Your task to perform on an android device: Is it going to rain this weekend? Image 0: 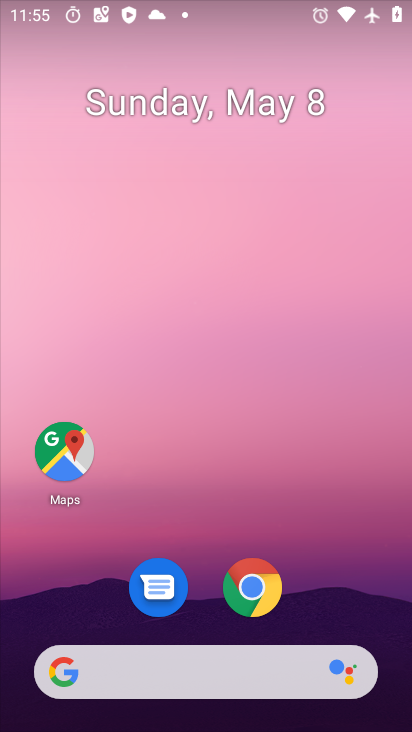
Step 0: drag from (3, 209) to (407, 476)
Your task to perform on an android device: Is it going to rain this weekend? Image 1: 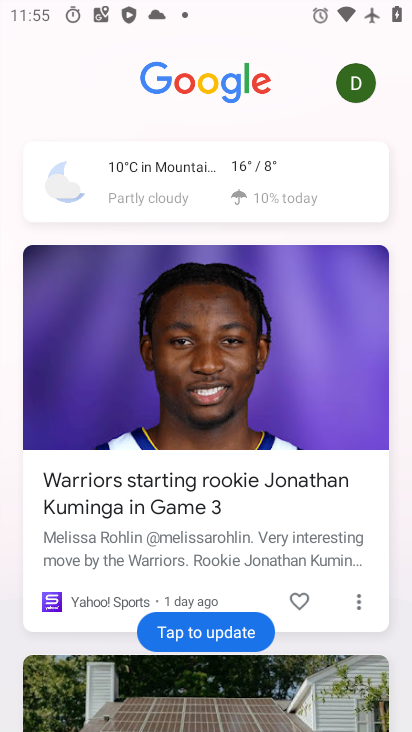
Step 1: click (214, 185)
Your task to perform on an android device: Is it going to rain this weekend? Image 2: 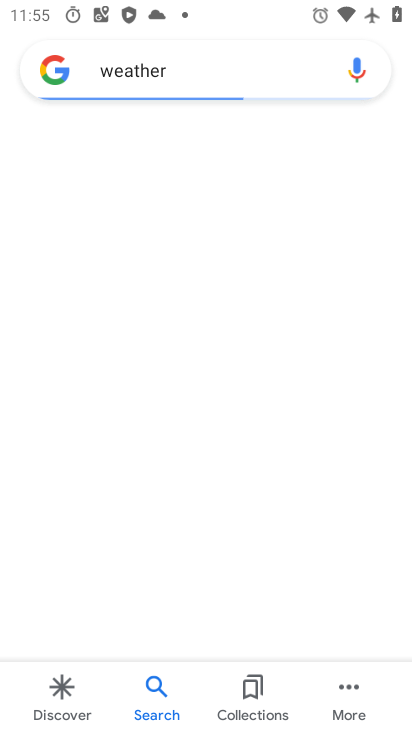
Step 2: click (214, 185)
Your task to perform on an android device: Is it going to rain this weekend? Image 3: 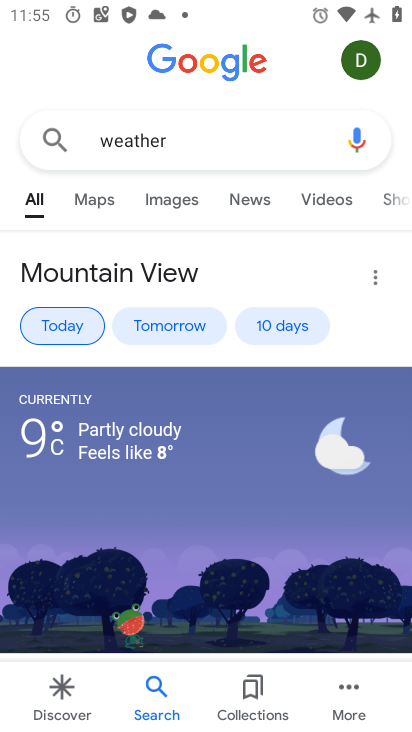
Step 3: click (158, 319)
Your task to perform on an android device: Is it going to rain this weekend? Image 4: 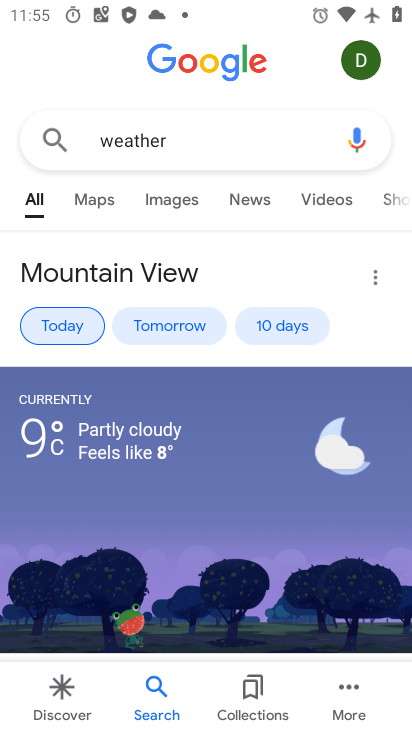
Step 4: click (160, 319)
Your task to perform on an android device: Is it going to rain this weekend? Image 5: 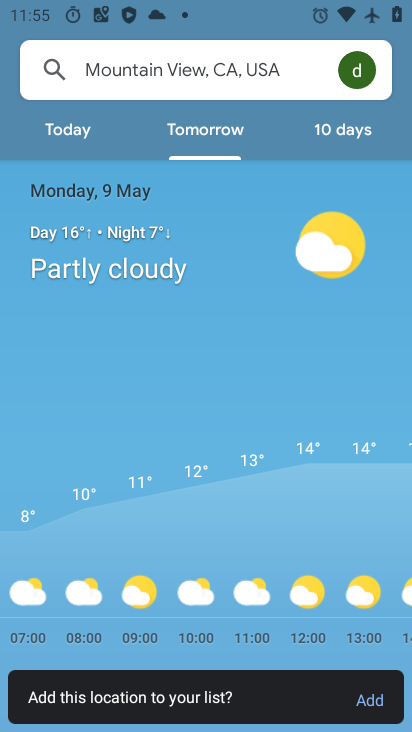
Step 5: drag from (176, 293) to (178, 704)
Your task to perform on an android device: Is it going to rain this weekend? Image 6: 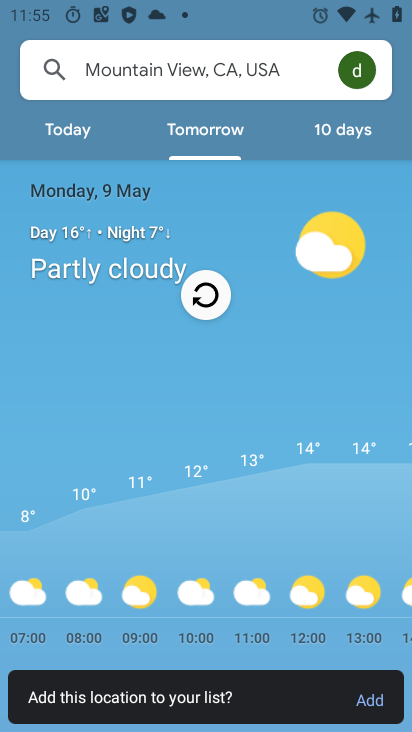
Step 6: drag from (227, 496) to (243, 572)
Your task to perform on an android device: Is it going to rain this weekend? Image 7: 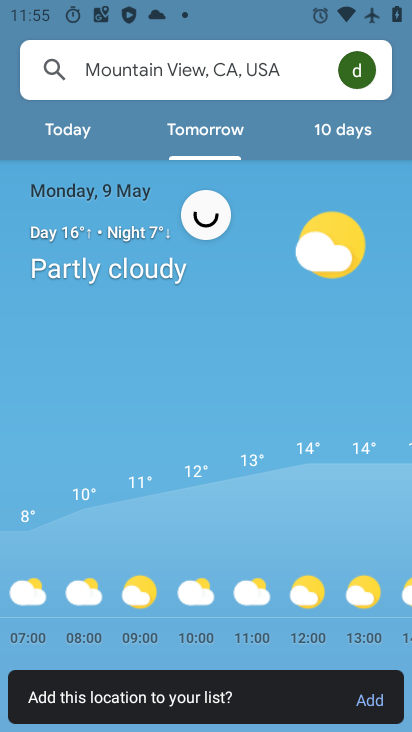
Step 7: drag from (267, 510) to (215, 509)
Your task to perform on an android device: Is it going to rain this weekend? Image 8: 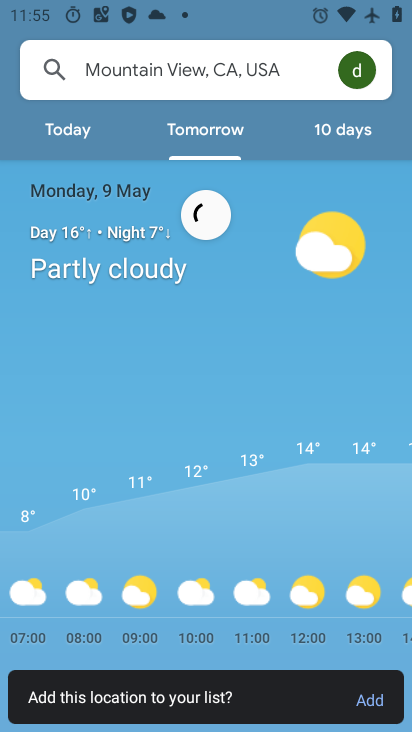
Step 8: click (225, 491)
Your task to perform on an android device: Is it going to rain this weekend? Image 9: 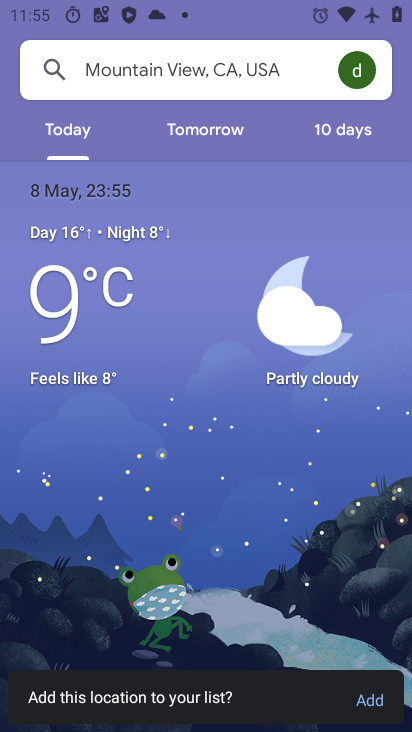
Step 9: task complete